Your task to perform on an android device: set default search engine in the chrome app Image 0: 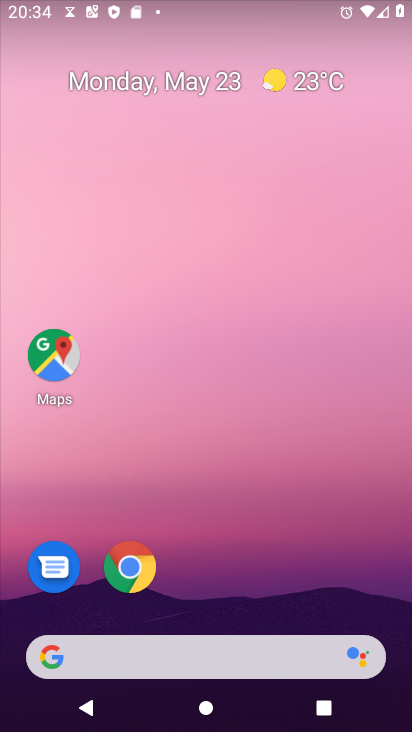
Step 0: drag from (282, 592) to (275, 141)
Your task to perform on an android device: set default search engine in the chrome app Image 1: 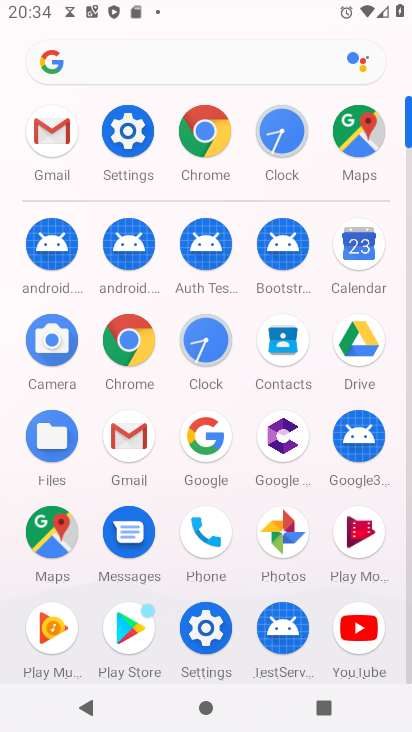
Step 1: click (191, 125)
Your task to perform on an android device: set default search engine in the chrome app Image 2: 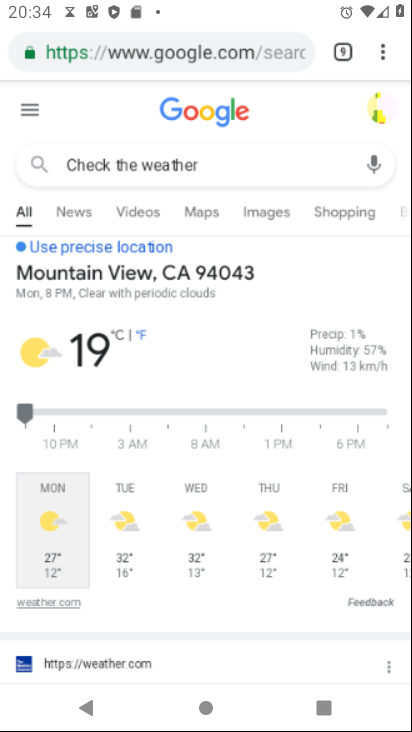
Step 2: click (389, 50)
Your task to perform on an android device: set default search engine in the chrome app Image 3: 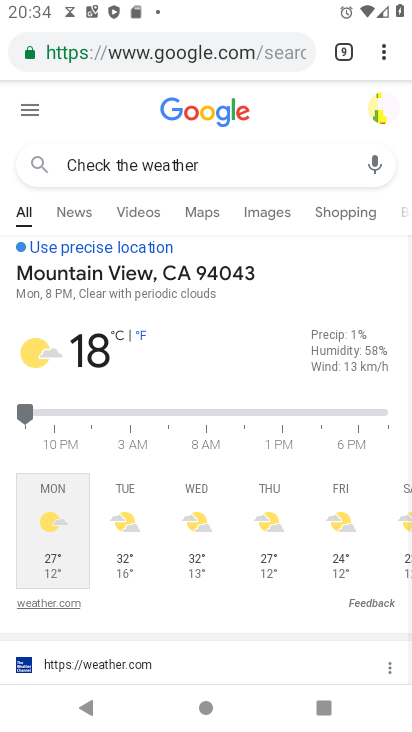
Step 3: click (385, 51)
Your task to perform on an android device: set default search engine in the chrome app Image 4: 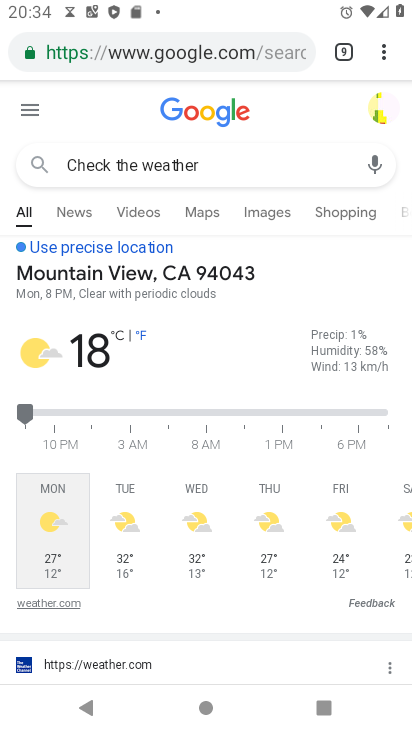
Step 4: click (385, 51)
Your task to perform on an android device: set default search engine in the chrome app Image 5: 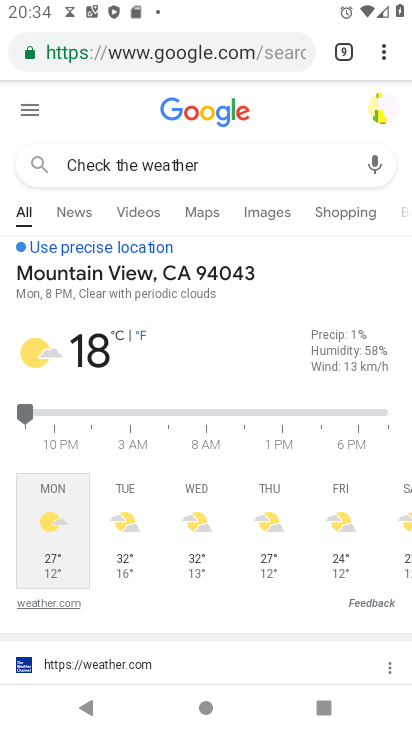
Step 5: click (385, 50)
Your task to perform on an android device: set default search engine in the chrome app Image 6: 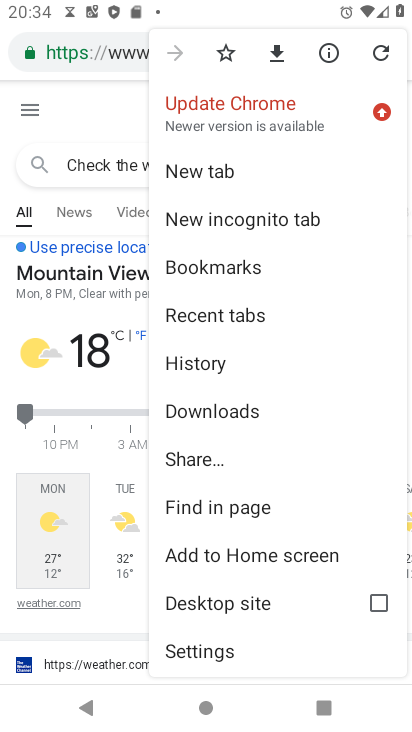
Step 6: click (208, 646)
Your task to perform on an android device: set default search engine in the chrome app Image 7: 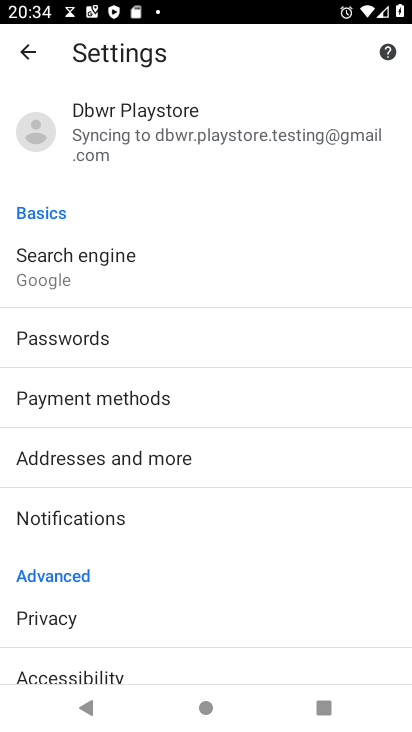
Step 7: click (68, 268)
Your task to perform on an android device: set default search engine in the chrome app Image 8: 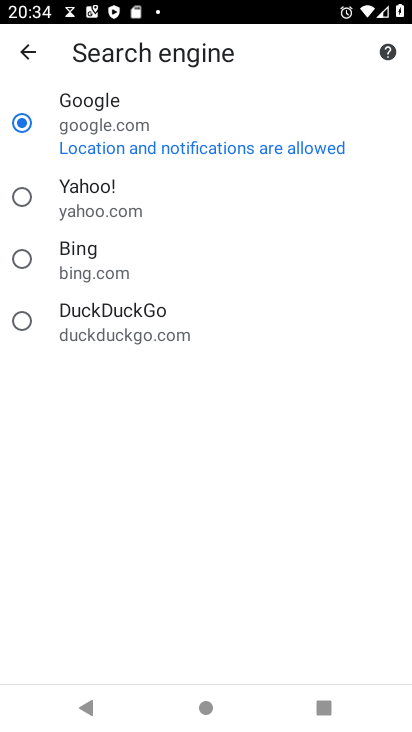
Step 8: click (68, 266)
Your task to perform on an android device: set default search engine in the chrome app Image 9: 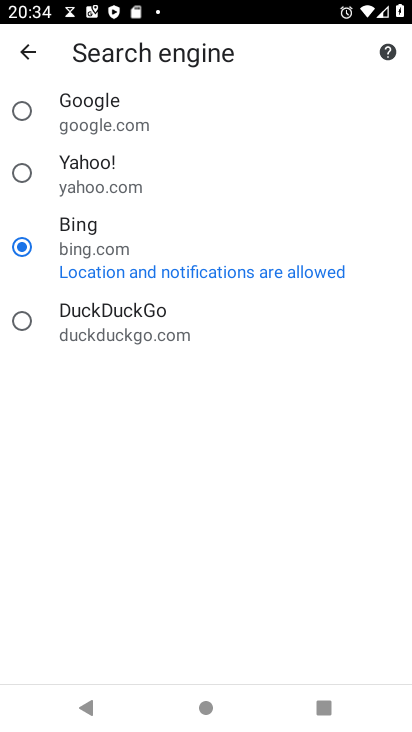
Step 9: task complete